Your task to perform on an android device: open device folders in google photos Image 0: 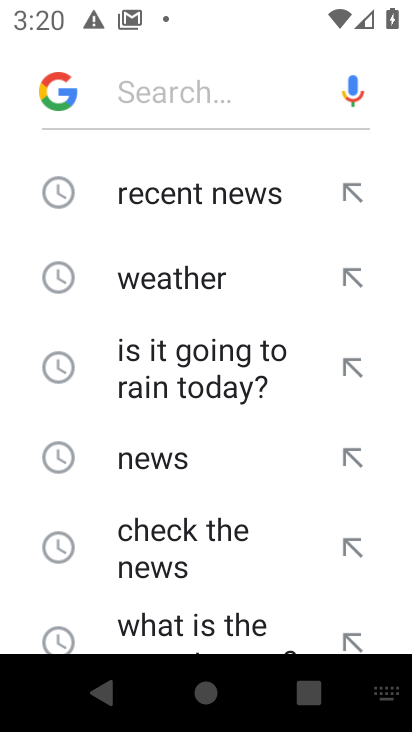
Step 0: press home button
Your task to perform on an android device: open device folders in google photos Image 1: 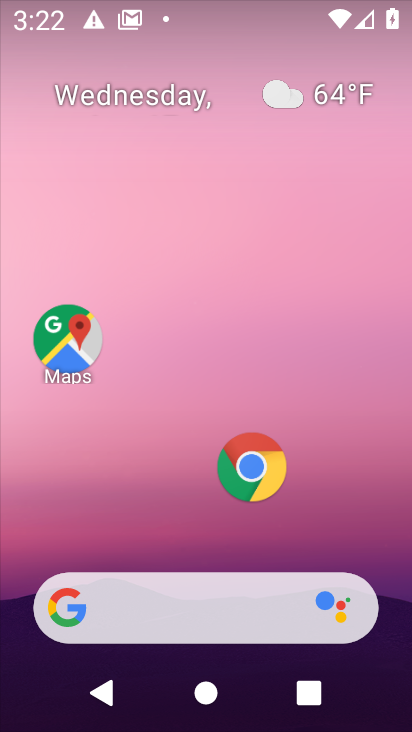
Step 1: task complete